Your task to perform on an android device: Go to privacy settings Image 0: 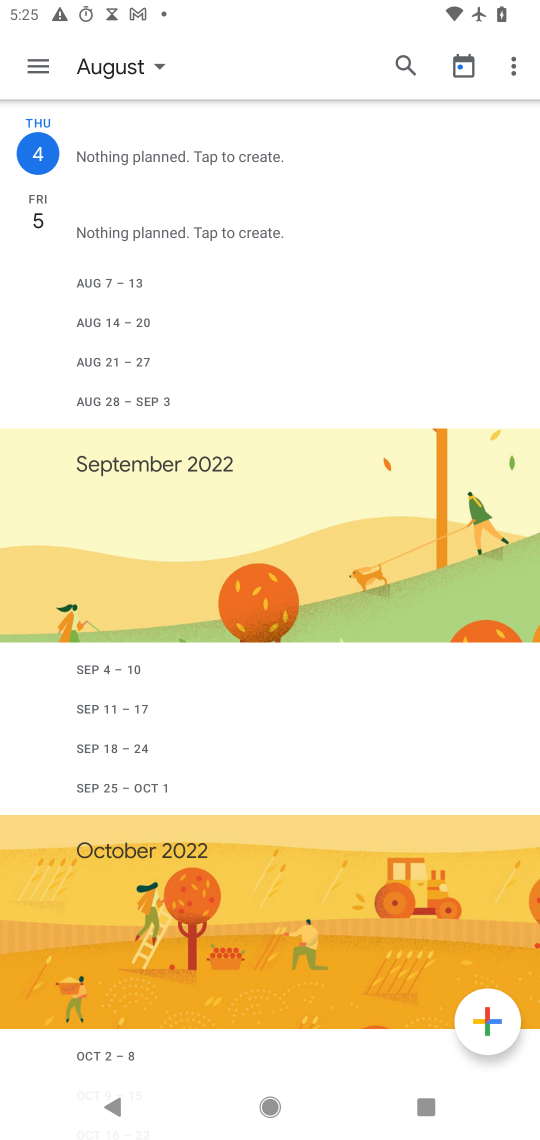
Step 0: press home button
Your task to perform on an android device: Go to privacy settings Image 1: 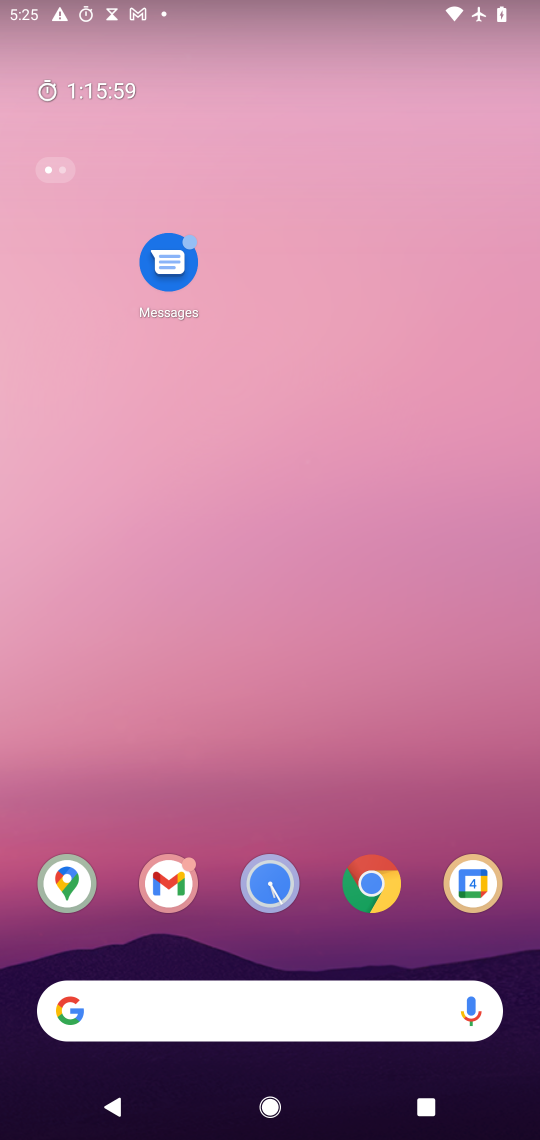
Step 1: drag from (309, 924) to (322, 75)
Your task to perform on an android device: Go to privacy settings Image 2: 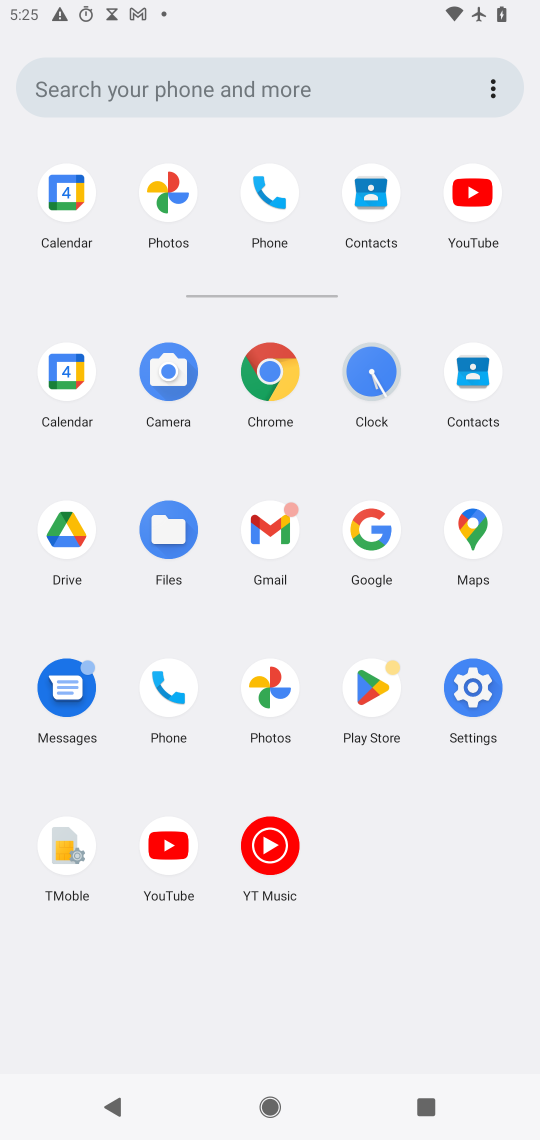
Step 2: click (476, 694)
Your task to perform on an android device: Go to privacy settings Image 3: 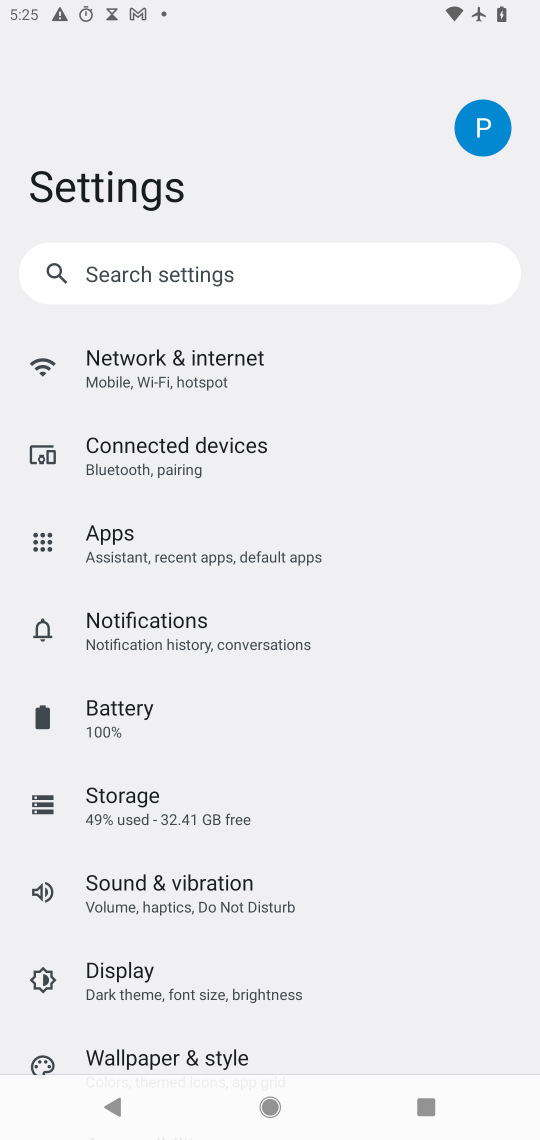
Step 3: drag from (229, 1039) to (229, 527)
Your task to perform on an android device: Go to privacy settings Image 4: 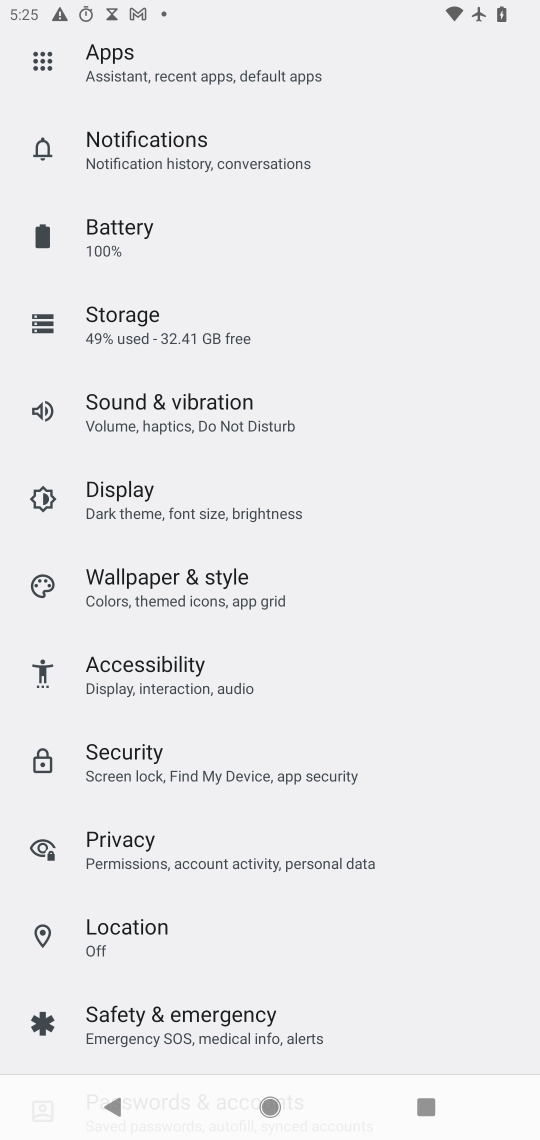
Step 4: click (115, 853)
Your task to perform on an android device: Go to privacy settings Image 5: 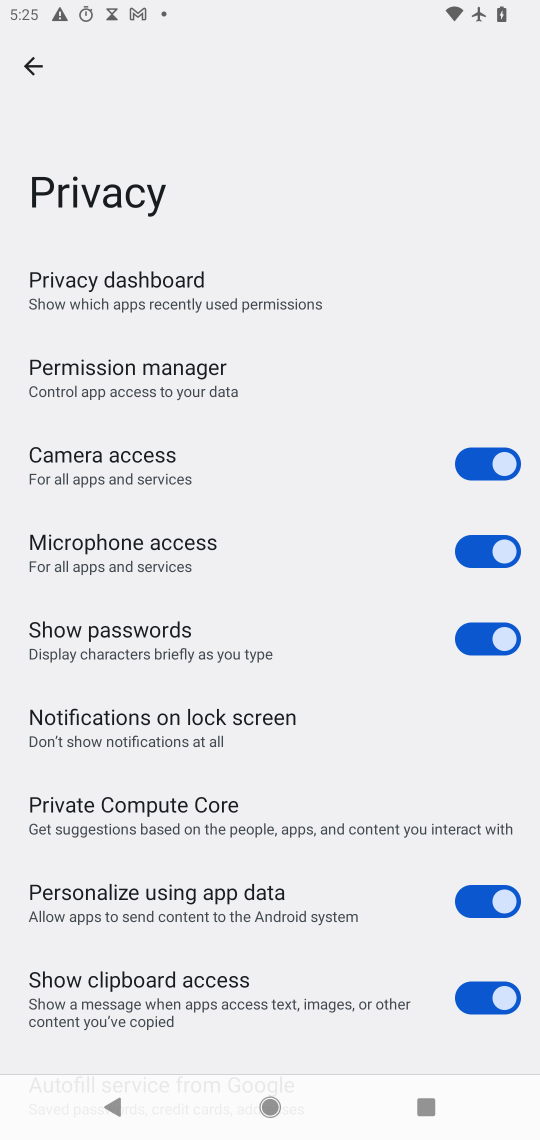
Step 5: task complete